Your task to perform on an android device: choose inbox layout in the gmail app Image 0: 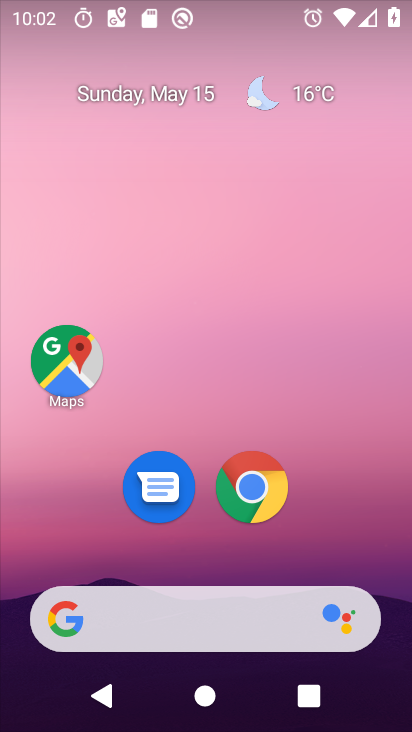
Step 0: drag from (361, 545) to (348, 225)
Your task to perform on an android device: choose inbox layout in the gmail app Image 1: 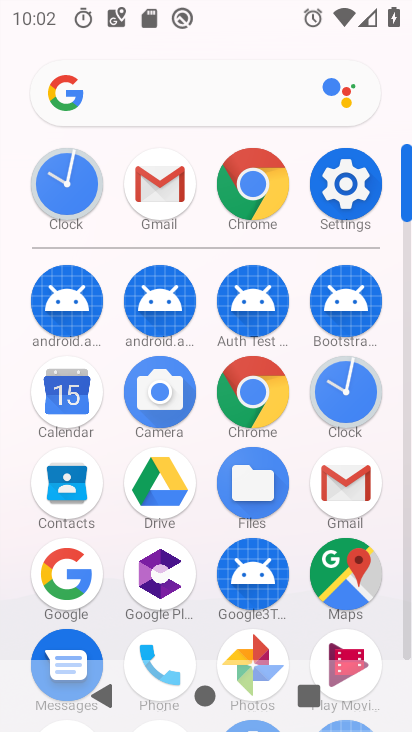
Step 1: click (325, 477)
Your task to perform on an android device: choose inbox layout in the gmail app Image 2: 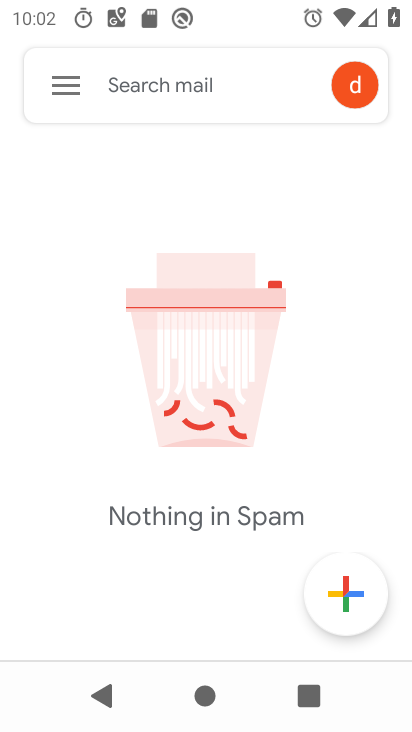
Step 2: click (49, 85)
Your task to perform on an android device: choose inbox layout in the gmail app Image 3: 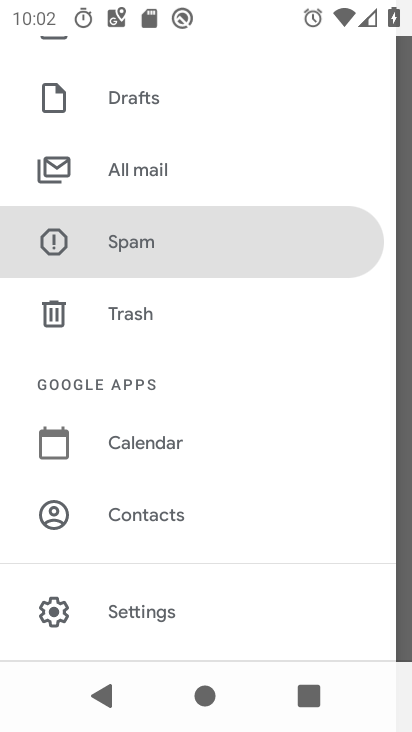
Step 3: drag from (235, 631) to (269, 249)
Your task to perform on an android device: choose inbox layout in the gmail app Image 4: 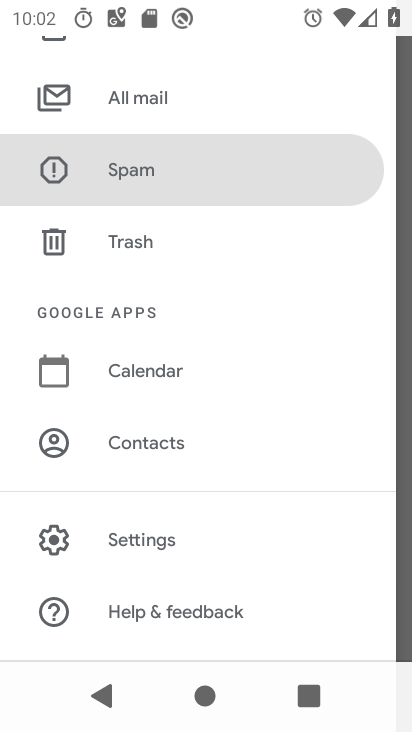
Step 4: click (189, 541)
Your task to perform on an android device: choose inbox layout in the gmail app Image 5: 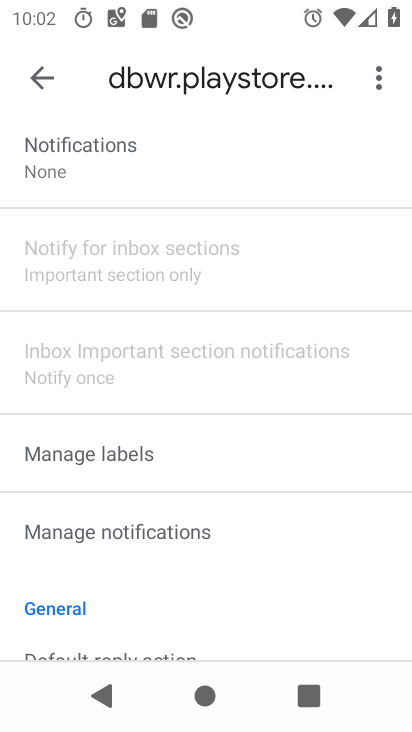
Step 5: drag from (111, 182) to (175, 512)
Your task to perform on an android device: choose inbox layout in the gmail app Image 6: 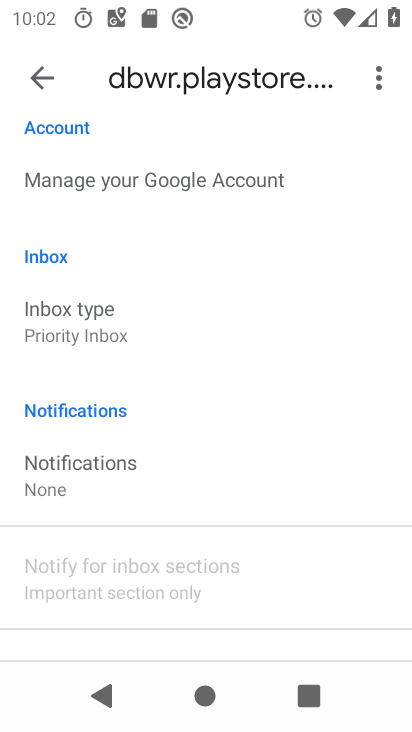
Step 6: click (106, 309)
Your task to perform on an android device: choose inbox layout in the gmail app Image 7: 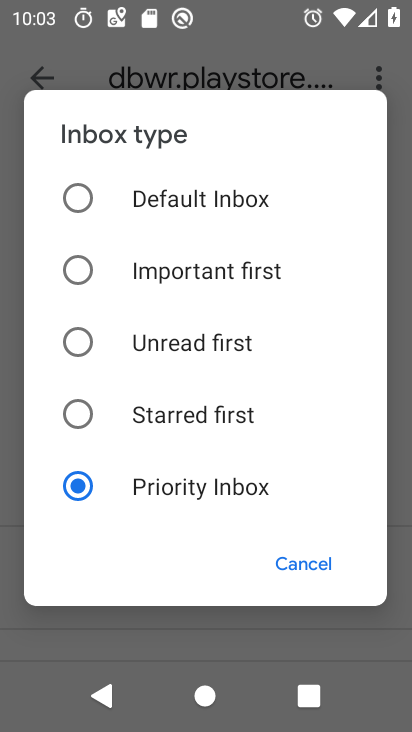
Step 7: click (88, 199)
Your task to perform on an android device: choose inbox layout in the gmail app Image 8: 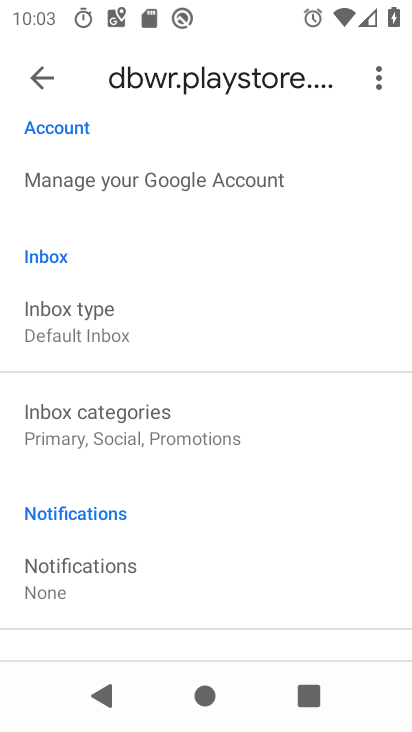
Step 8: task complete